Your task to perform on an android device: refresh tabs in the chrome app Image 0: 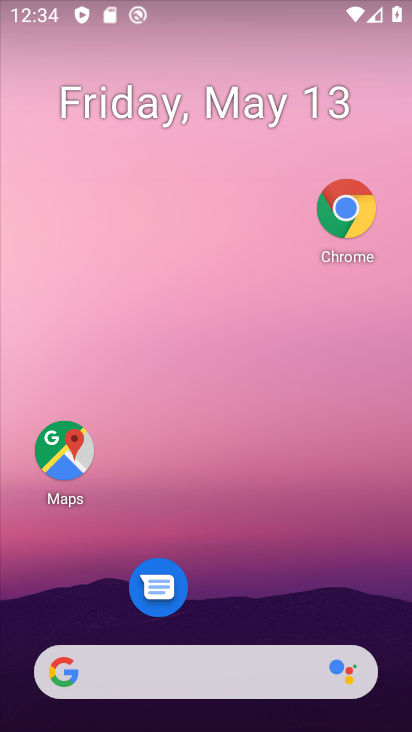
Step 0: click (352, 204)
Your task to perform on an android device: refresh tabs in the chrome app Image 1: 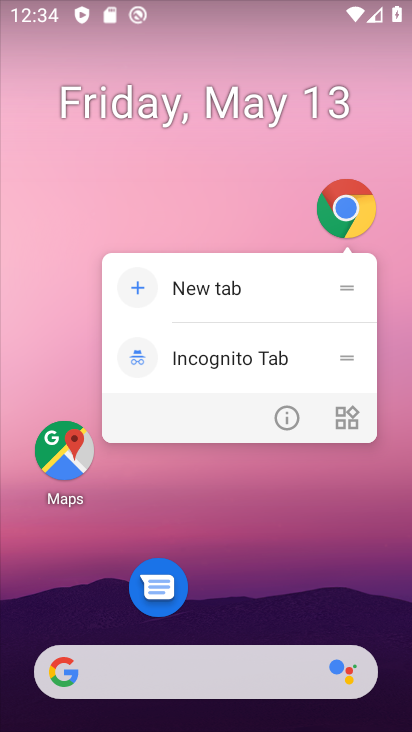
Step 1: click (344, 196)
Your task to perform on an android device: refresh tabs in the chrome app Image 2: 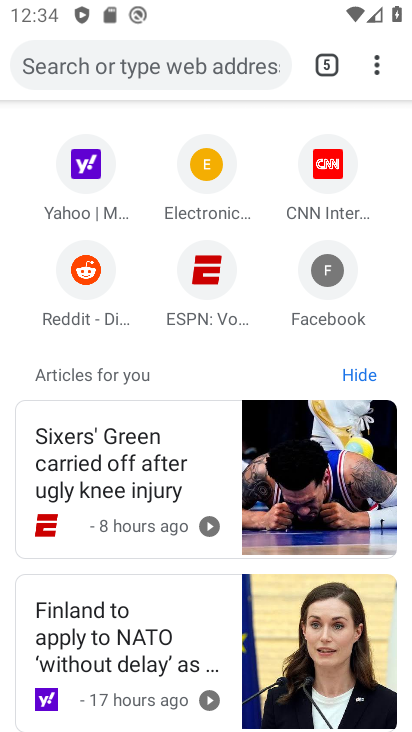
Step 2: click (379, 69)
Your task to perform on an android device: refresh tabs in the chrome app Image 3: 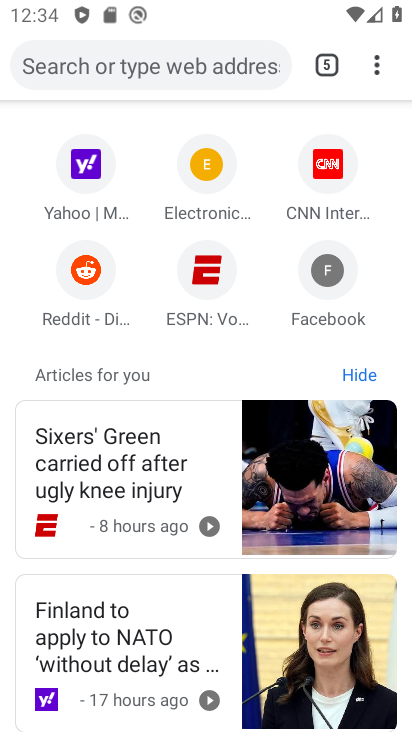
Step 3: task complete